Your task to perform on an android device: Go to Yahoo.com Image 0: 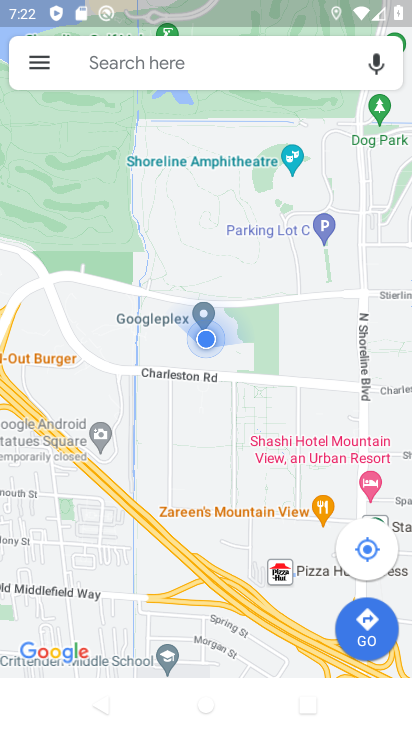
Step 0: press home button
Your task to perform on an android device: Go to Yahoo.com Image 1: 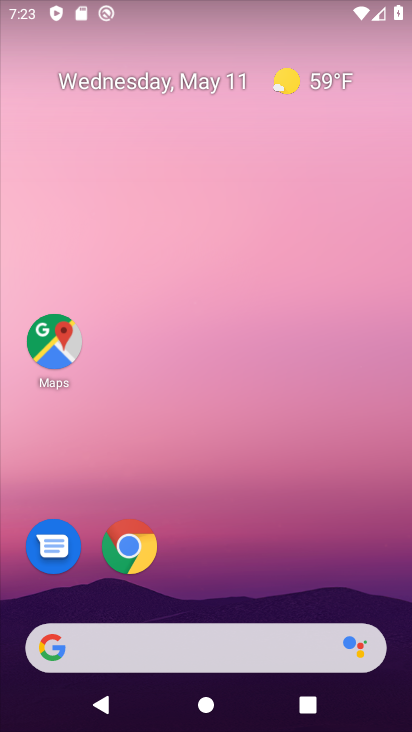
Step 1: click (139, 545)
Your task to perform on an android device: Go to Yahoo.com Image 2: 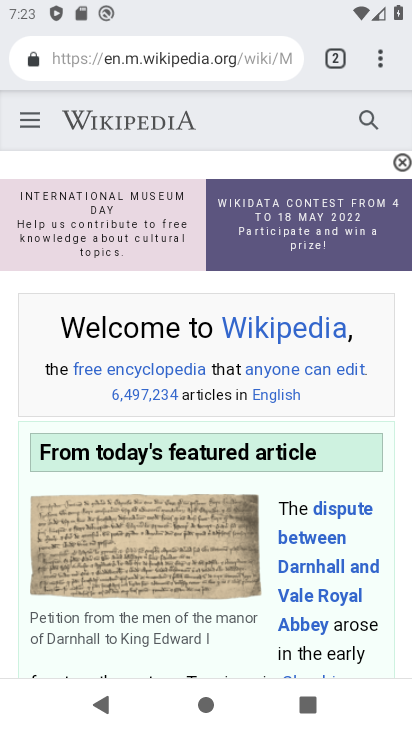
Step 2: click (386, 65)
Your task to perform on an android device: Go to Yahoo.com Image 3: 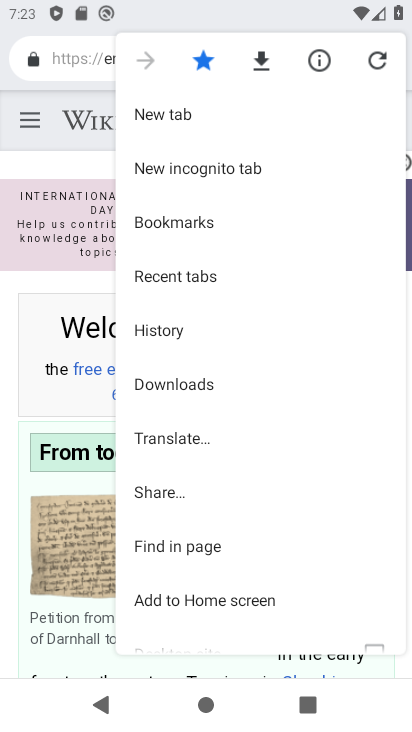
Step 3: drag from (221, 474) to (221, 277)
Your task to perform on an android device: Go to Yahoo.com Image 4: 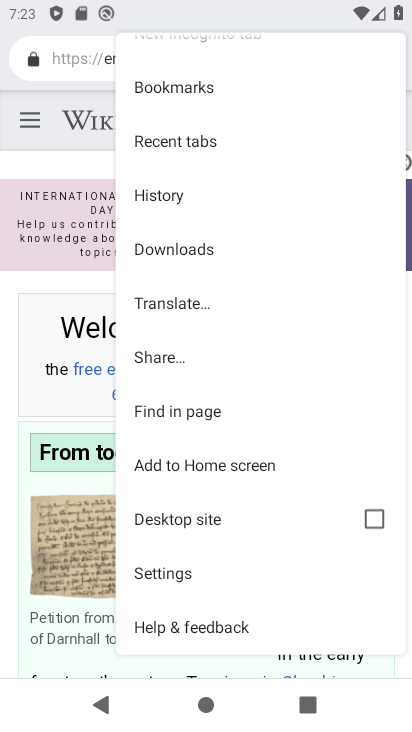
Step 4: click (56, 343)
Your task to perform on an android device: Go to Yahoo.com Image 5: 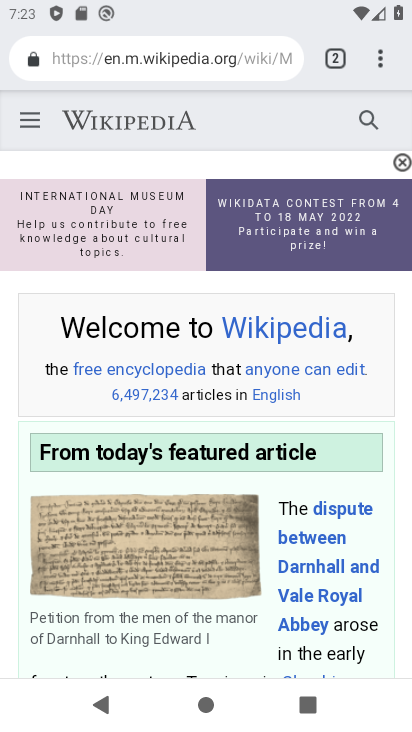
Step 5: click (335, 47)
Your task to perform on an android device: Go to Yahoo.com Image 6: 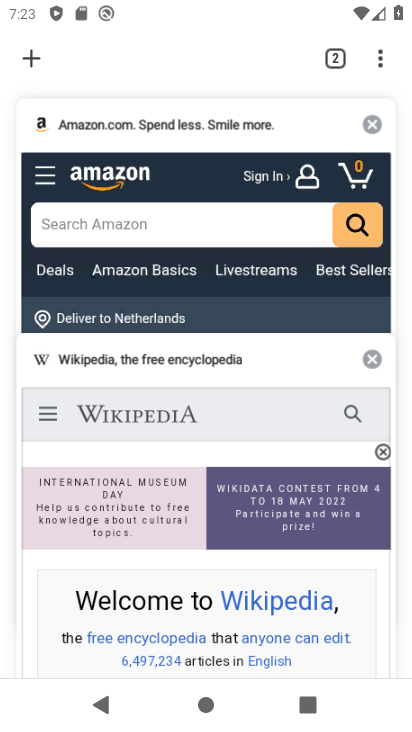
Step 6: click (379, 125)
Your task to perform on an android device: Go to Yahoo.com Image 7: 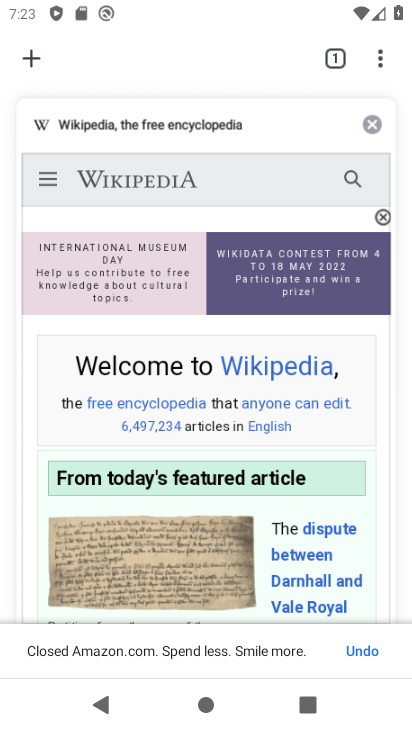
Step 7: click (379, 125)
Your task to perform on an android device: Go to Yahoo.com Image 8: 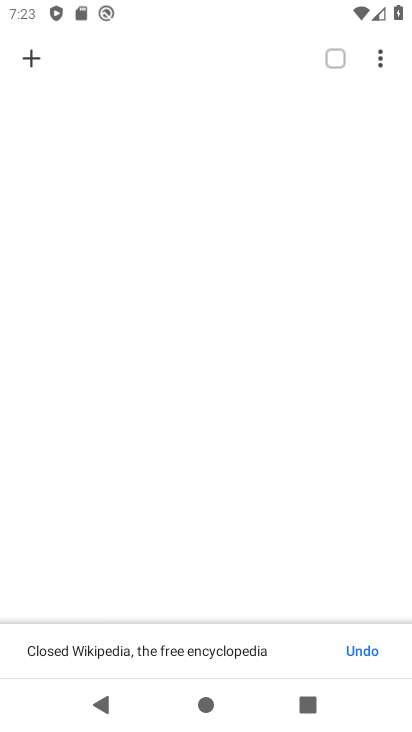
Step 8: click (33, 59)
Your task to perform on an android device: Go to Yahoo.com Image 9: 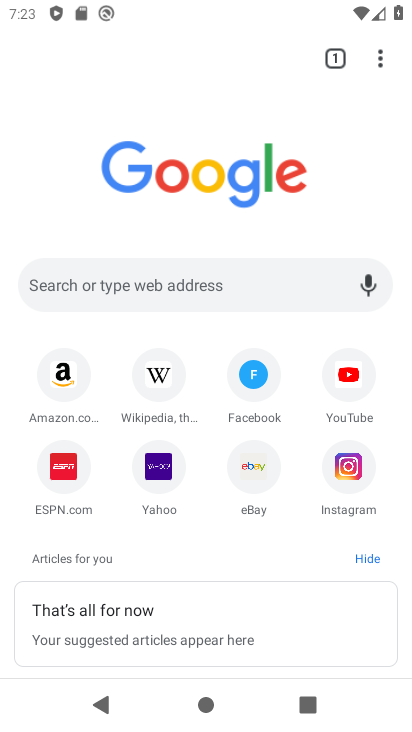
Step 9: click (166, 464)
Your task to perform on an android device: Go to Yahoo.com Image 10: 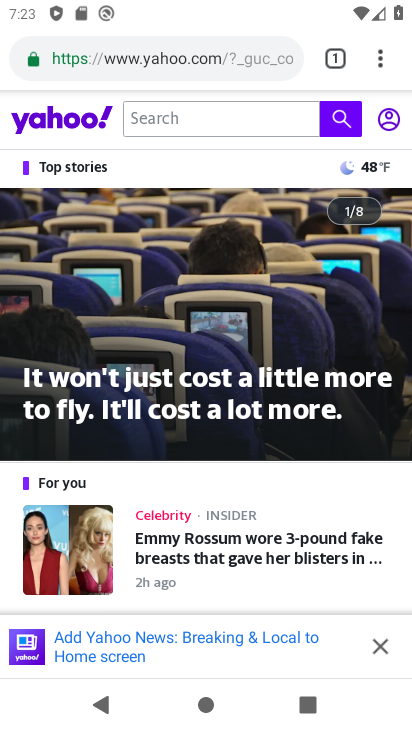
Step 10: task complete